Your task to perform on an android device: Open calendar and show me the first week of next month Image 0: 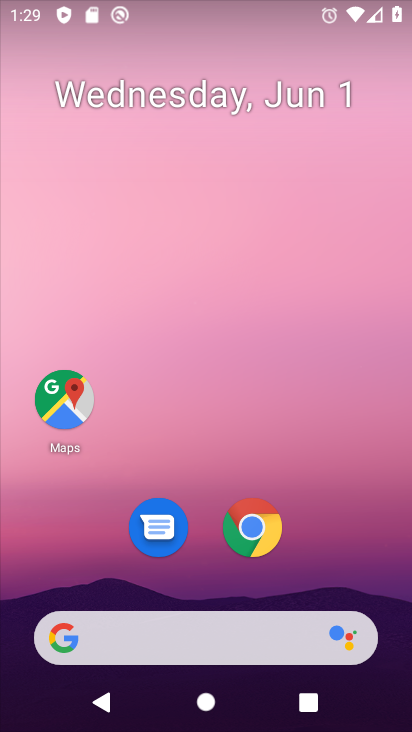
Step 0: drag from (380, 564) to (280, 241)
Your task to perform on an android device: Open calendar and show me the first week of next month Image 1: 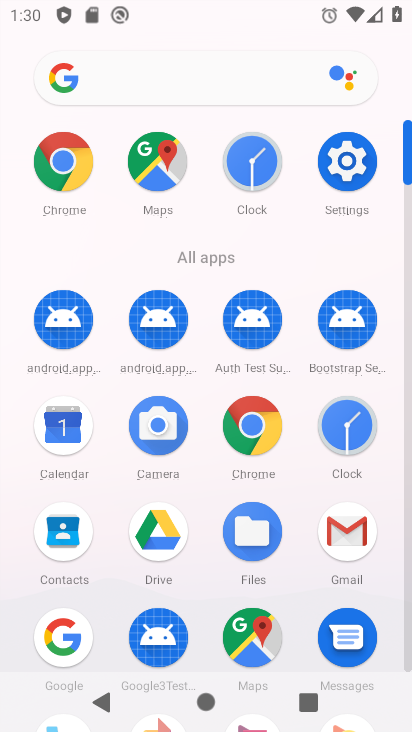
Step 1: click (47, 440)
Your task to perform on an android device: Open calendar and show me the first week of next month Image 2: 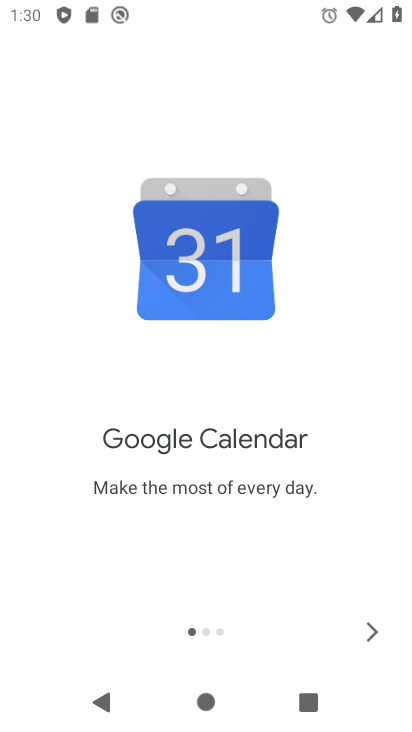
Step 2: click (371, 618)
Your task to perform on an android device: Open calendar and show me the first week of next month Image 3: 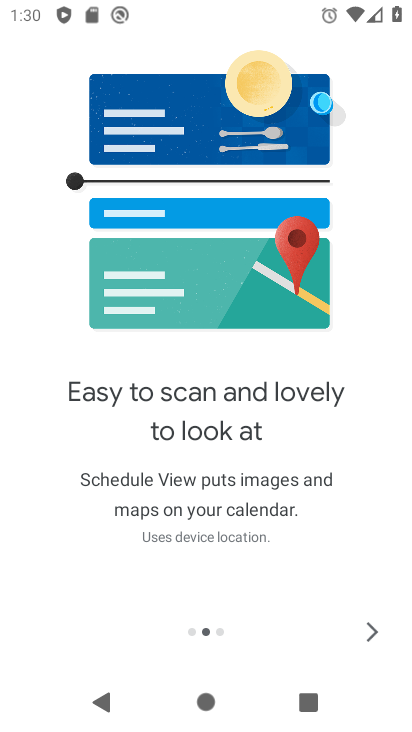
Step 3: click (374, 626)
Your task to perform on an android device: Open calendar and show me the first week of next month Image 4: 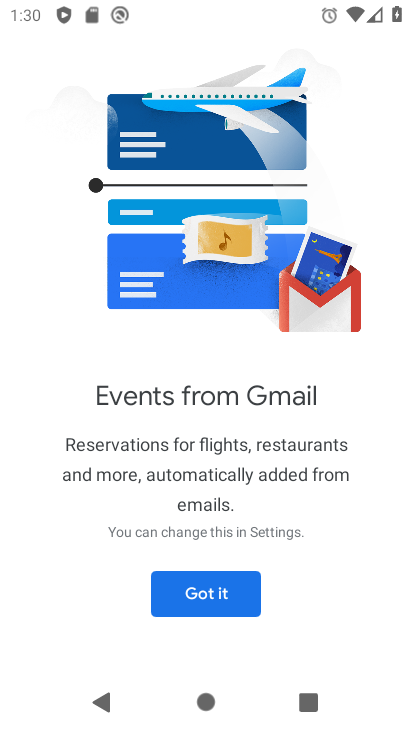
Step 4: click (238, 603)
Your task to perform on an android device: Open calendar and show me the first week of next month Image 5: 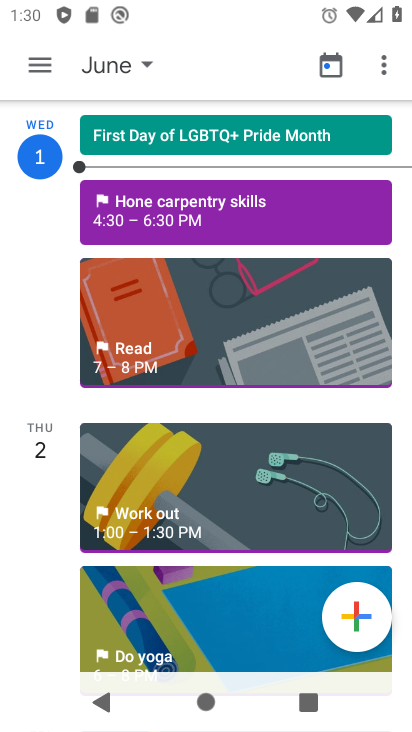
Step 5: click (129, 71)
Your task to perform on an android device: Open calendar and show me the first week of next month Image 6: 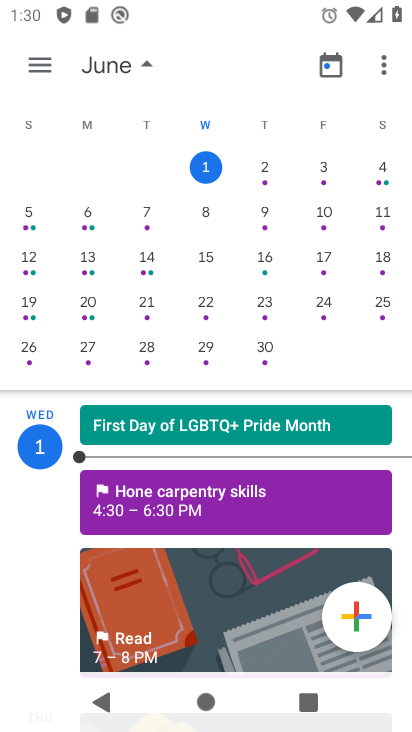
Step 6: click (214, 175)
Your task to perform on an android device: Open calendar and show me the first week of next month Image 7: 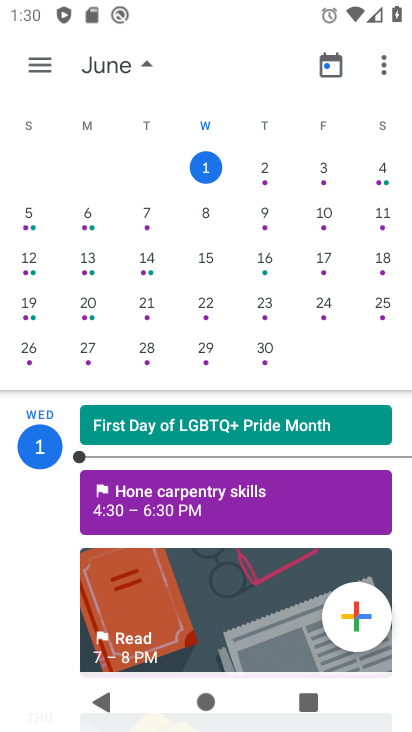
Step 7: click (23, 47)
Your task to perform on an android device: Open calendar and show me the first week of next month Image 8: 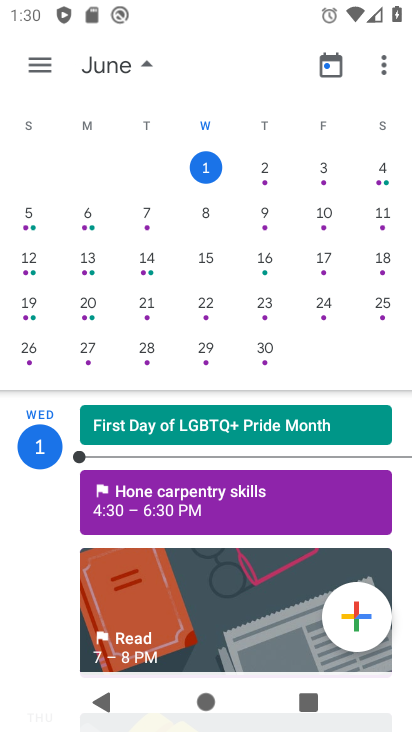
Step 8: click (31, 56)
Your task to perform on an android device: Open calendar and show me the first week of next month Image 9: 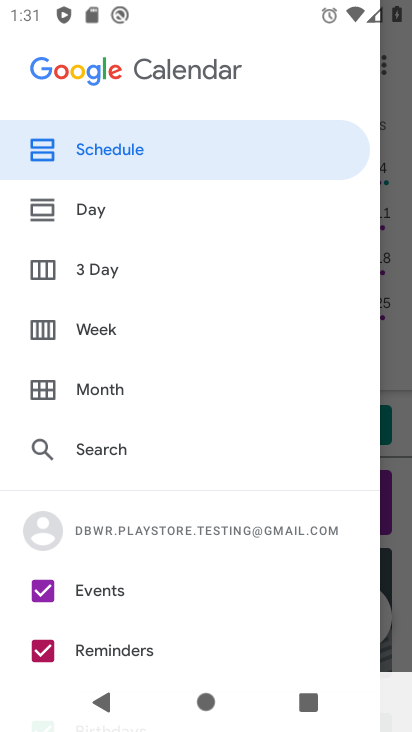
Step 9: click (109, 323)
Your task to perform on an android device: Open calendar and show me the first week of next month Image 10: 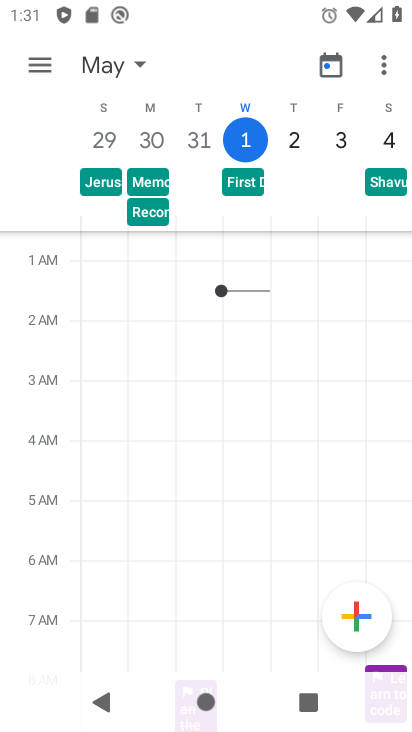
Step 10: click (150, 71)
Your task to perform on an android device: Open calendar and show me the first week of next month Image 11: 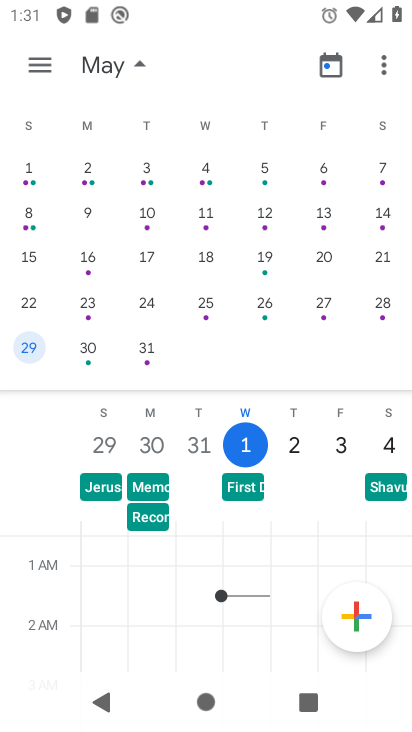
Step 11: task complete